Your task to perform on an android device: turn on showing notifications on the lock screen Image 0: 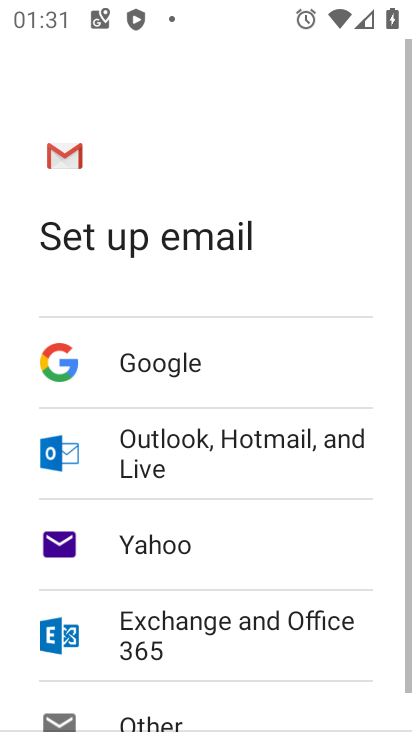
Step 0: press home button
Your task to perform on an android device: turn on showing notifications on the lock screen Image 1: 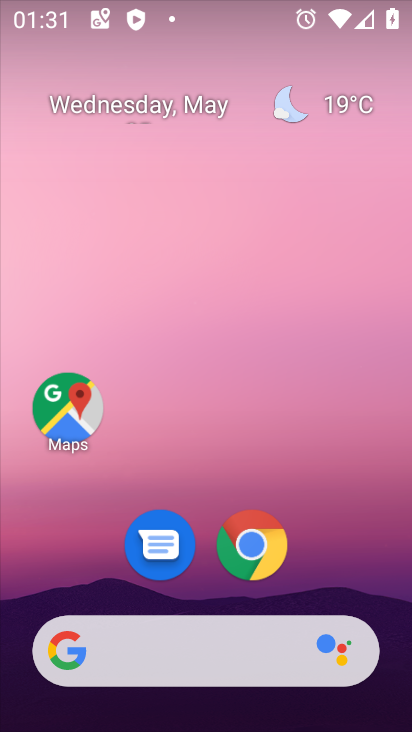
Step 1: drag from (377, 530) to (366, 178)
Your task to perform on an android device: turn on showing notifications on the lock screen Image 2: 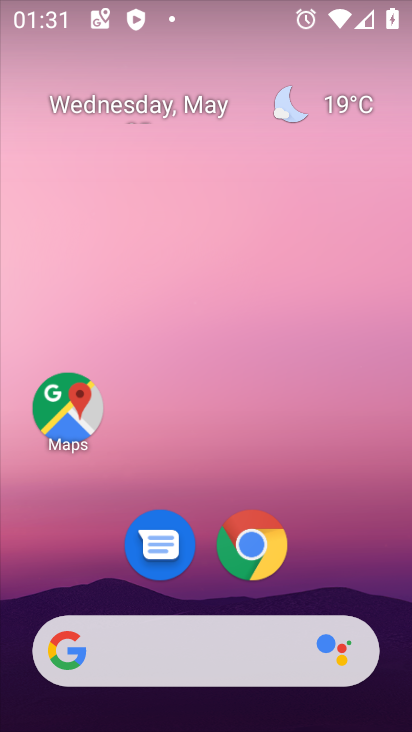
Step 2: press home button
Your task to perform on an android device: turn on showing notifications on the lock screen Image 3: 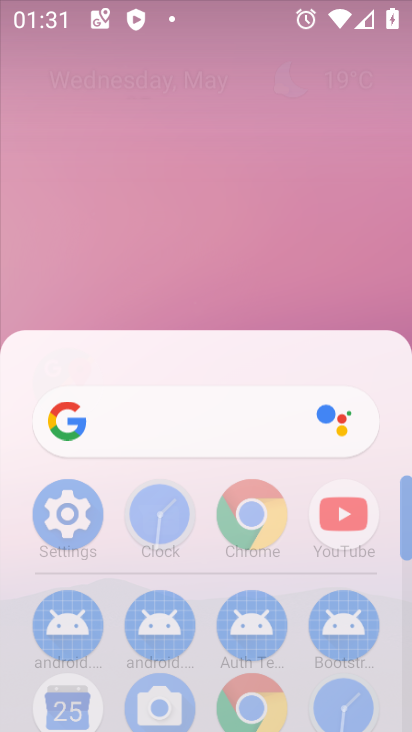
Step 3: click (325, 80)
Your task to perform on an android device: turn on showing notifications on the lock screen Image 4: 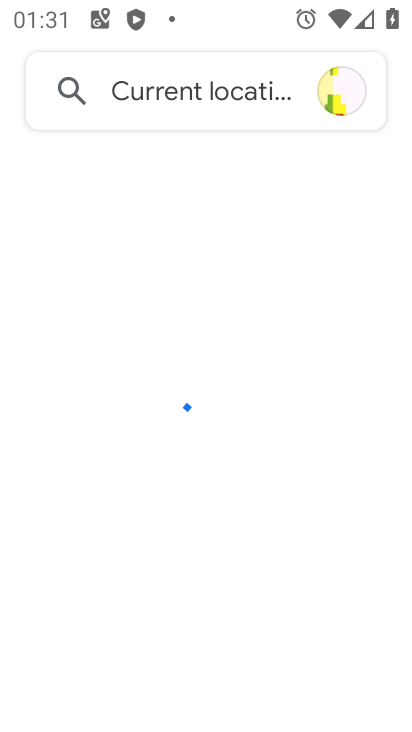
Step 4: press home button
Your task to perform on an android device: turn on showing notifications on the lock screen Image 5: 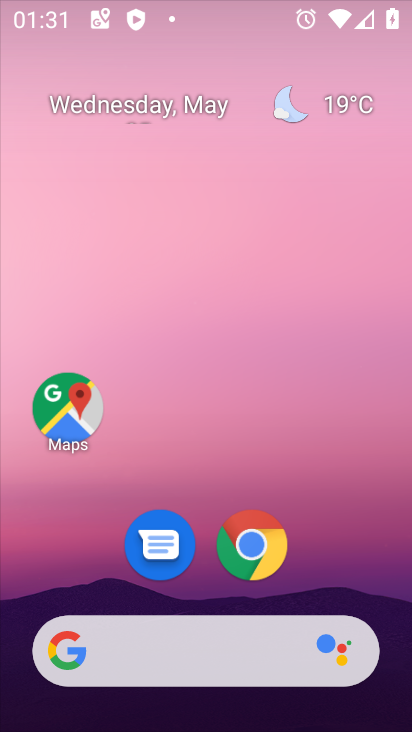
Step 5: drag from (335, 537) to (368, 159)
Your task to perform on an android device: turn on showing notifications on the lock screen Image 6: 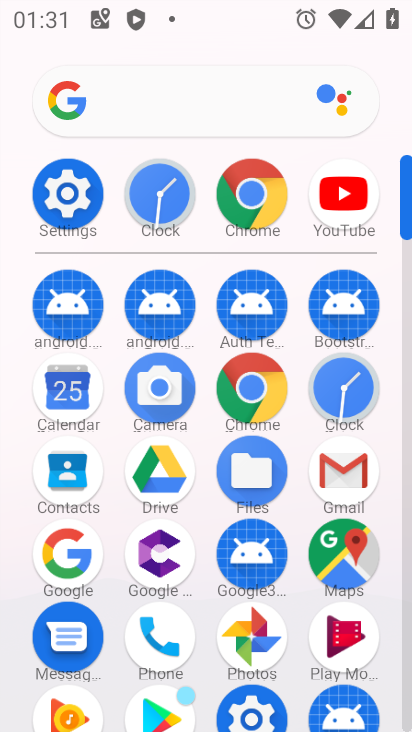
Step 6: click (73, 206)
Your task to perform on an android device: turn on showing notifications on the lock screen Image 7: 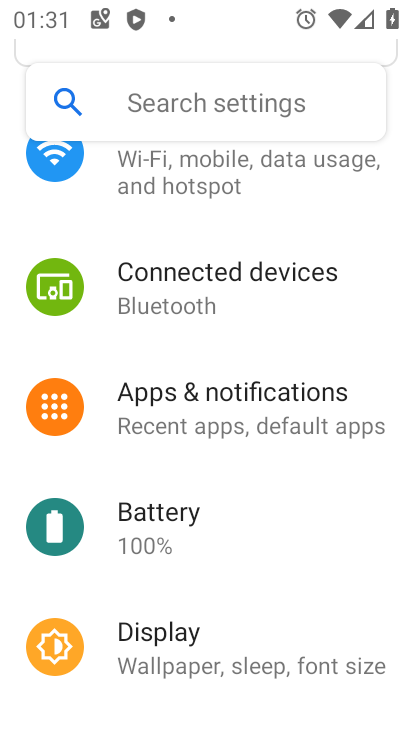
Step 7: drag from (279, 521) to (398, 102)
Your task to perform on an android device: turn on showing notifications on the lock screen Image 8: 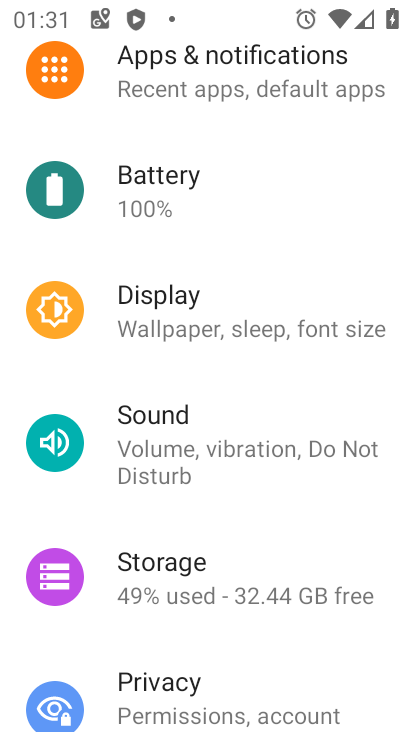
Step 8: drag from (207, 617) to (302, 180)
Your task to perform on an android device: turn on showing notifications on the lock screen Image 9: 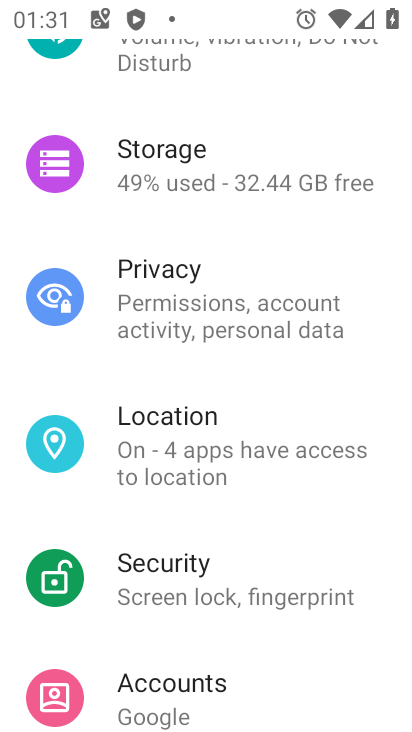
Step 9: drag from (243, 224) to (230, 716)
Your task to perform on an android device: turn on showing notifications on the lock screen Image 10: 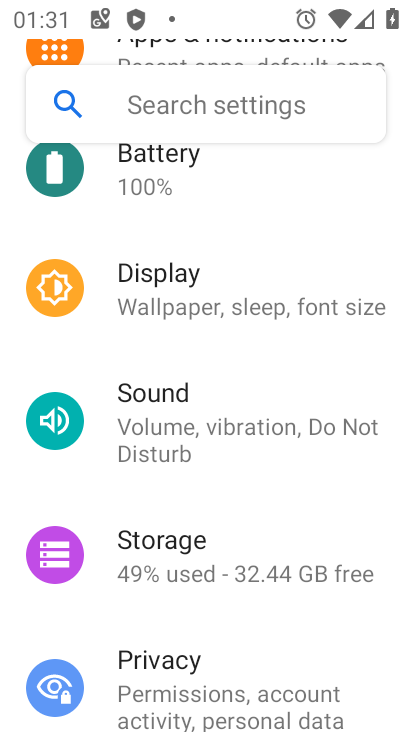
Step 10: drag from (237, 600) to (238, 685)
Your task to perform on an android device: turn on showing notifications on the lock screen Image 11: 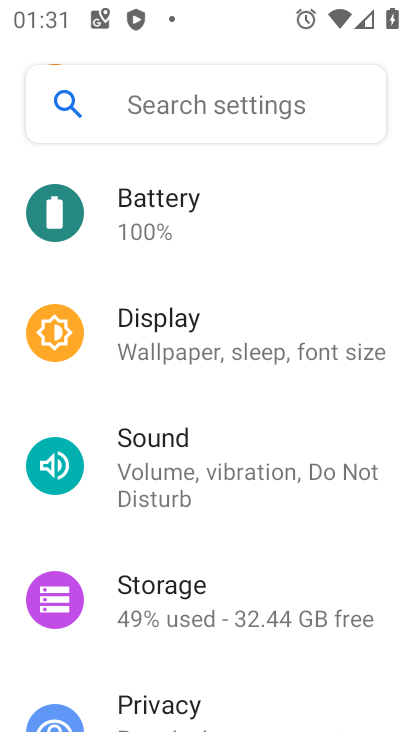
Step 11: drag from (221, 297) to (222, 661)
Your task to perform on an android device: turn on showing notifications on the lock screen Image 12: 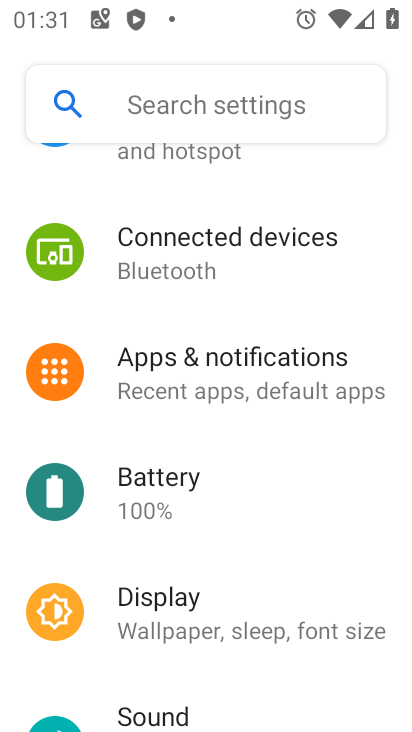
Step 12: click (229, 361)
Your task to perform on an android device: turn on showing notifications on the lock screen Image 13: 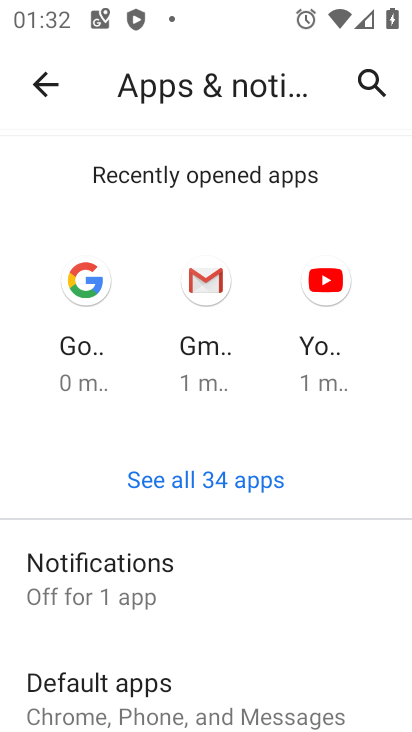
Step 13: click (113, 564)
Your task to perform on an android device: turn on showing notifications on the lock screen Image 14: 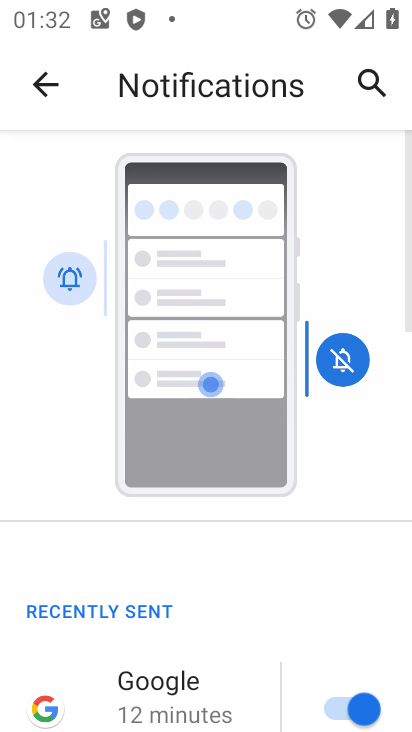
Step 14: drag from (225, 593) to (386, 20)
Your task to perform on an android device: turn on showing notifications on the lock screen Image 15: 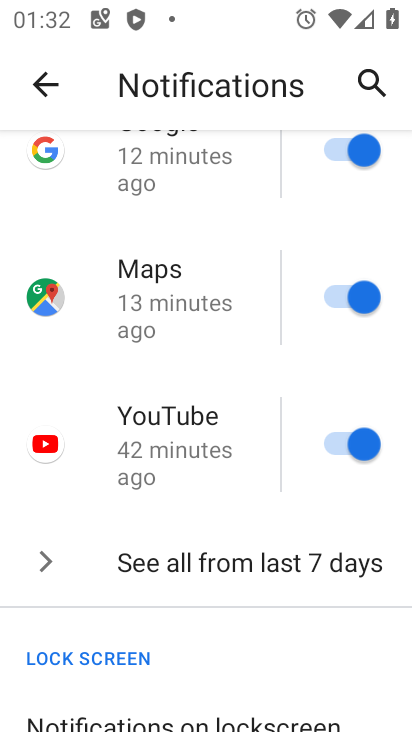
Step 15: drag from (172, 644) to (331, 57)
Your task to perform on an android device: turn on showing notifications on the lock screen Image 16: 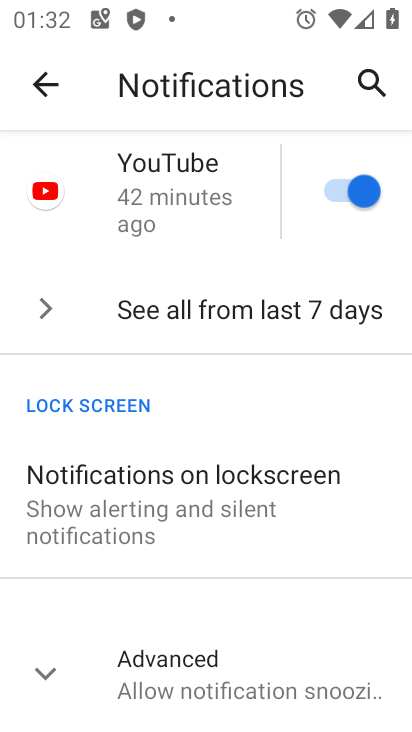
Step 16: drag from (197, 594) to (311, 259)
Your task to perform on an android device: turn on showing notifications on the lock screen Image 17: 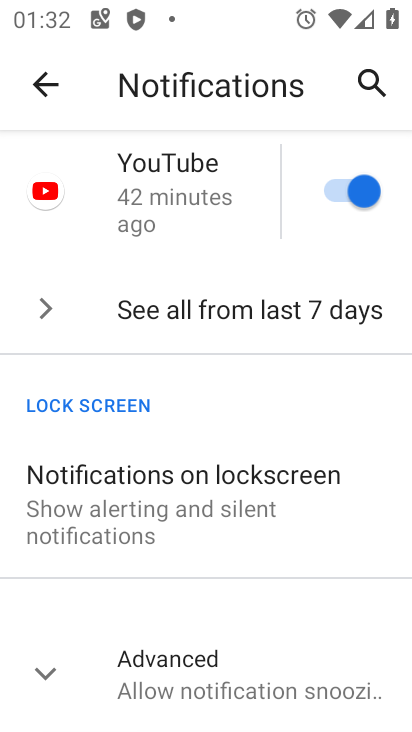
Step 17: click (138, 480)
Your task to perform on an android device: turn on showing notifications on the lock screen Image 18: 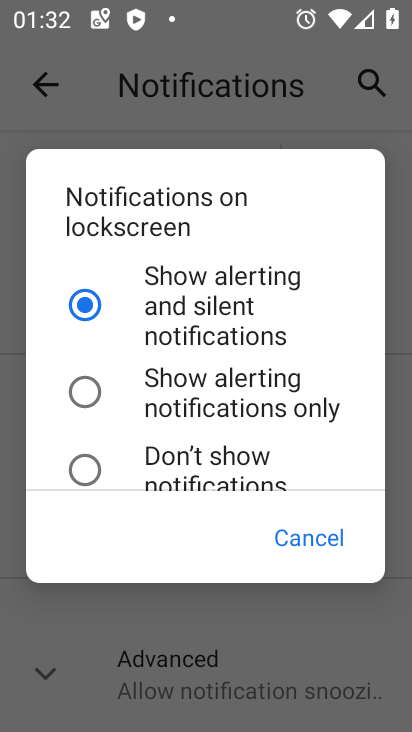
Step 18: click (205, 398)
Your task to perform on an android device: turn on showing notifications on the lock screen Image 19: 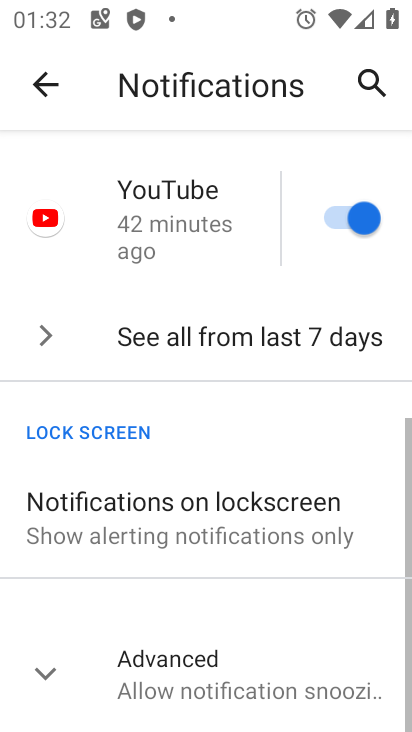
Step 19: task complete